Your task to perform on an android device: Go to battery settings Image 0: 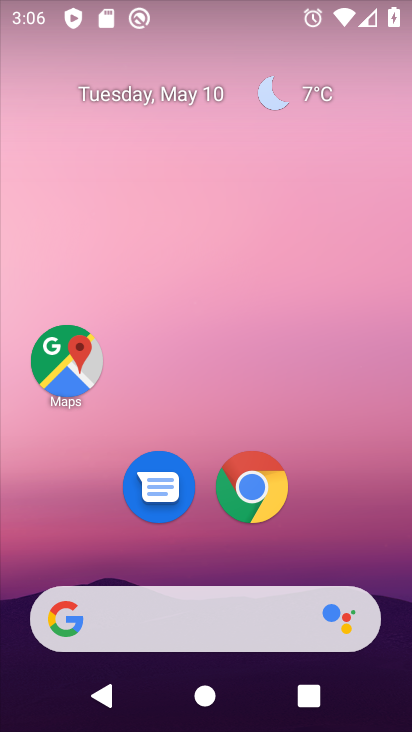
Step 0: drag from (333, 431) to (276, 79)
Your task to perform on an android device: Go to battery settings Image 1: 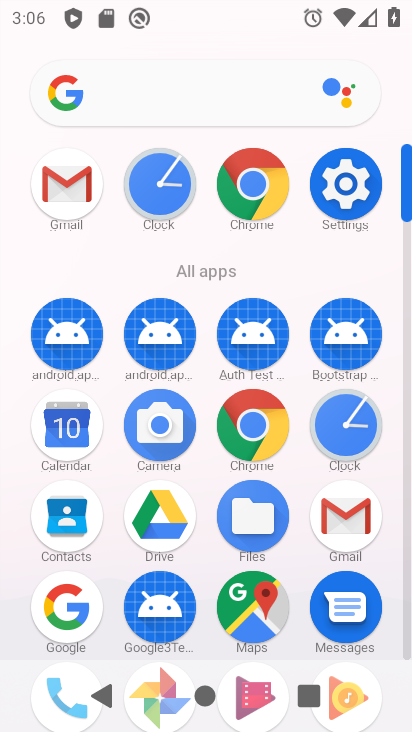
Step 1: click (342, 204)
Your task to perform on an android device: Go to battery settings Image 2: 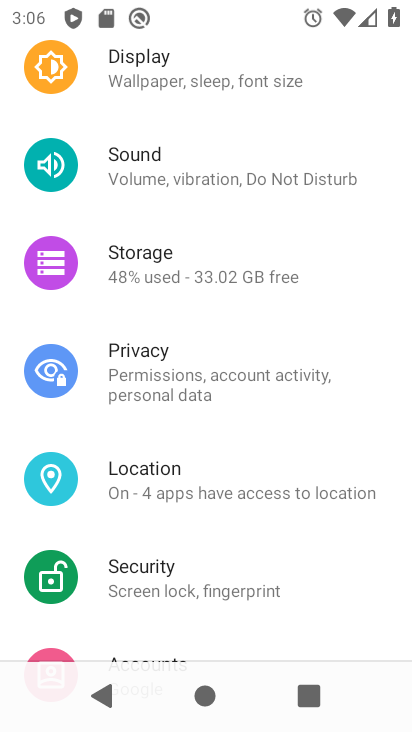
Step 2: drag from (264, 181) to (236, 590)
Your task to perform on an android device: Go to battery settings Image 3: 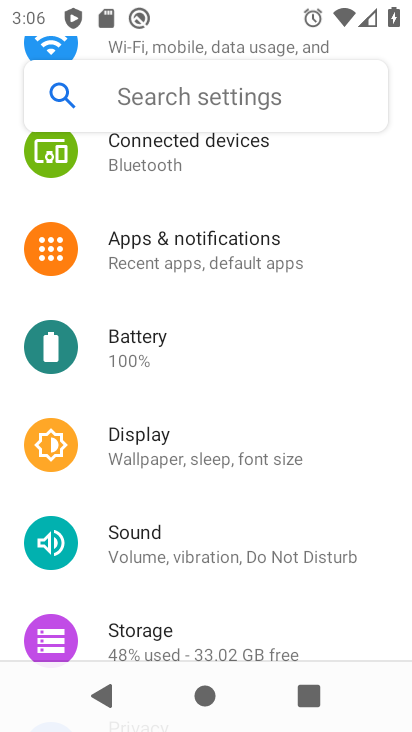
Step 3: click (138, 340)
Your task to perform on an android device: Go to battery settings Image 4: 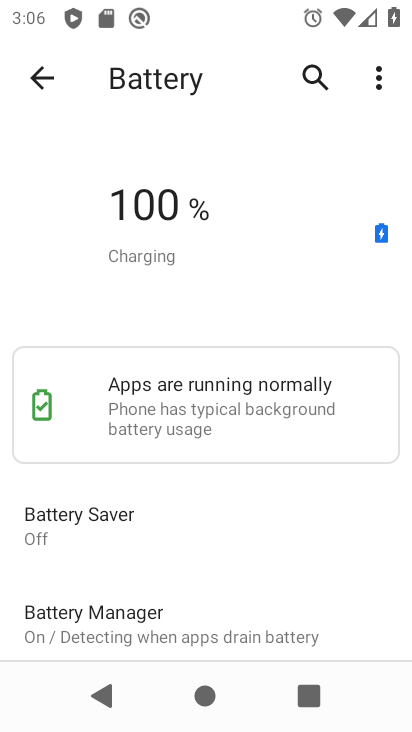
Step 4: task complete